Your task to perform on an android device: Open calendar and show me the third week of next month Image 0: 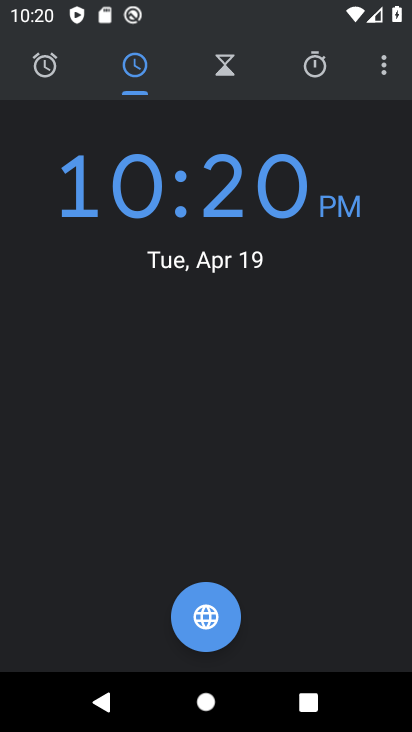
Step 0: press home button
Your task to perform on an android device: Open calendar and show me the third week of next month Image 1: 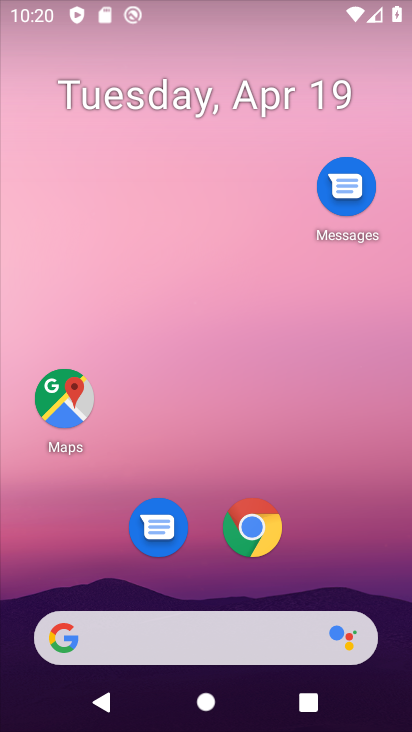
Step 1: drag from (382, 537) to (348, 166)
Your task to perform on an android device: Open calendar and show me the third week of next month Image 2: 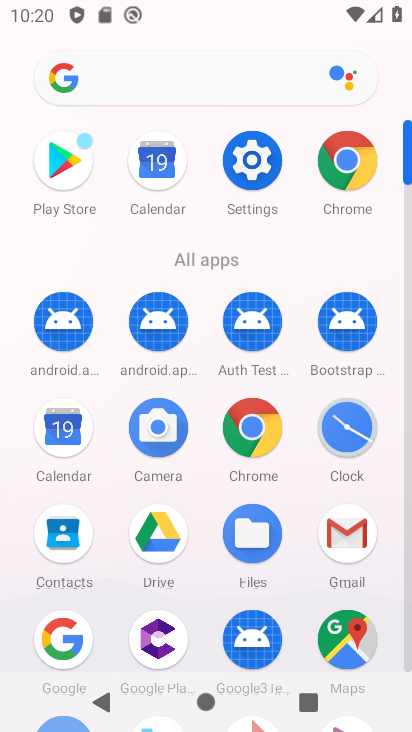
Step 2: click (69, 444)
Your task to perform on an android device: Open calendar and show me the third week of next month Image 3: 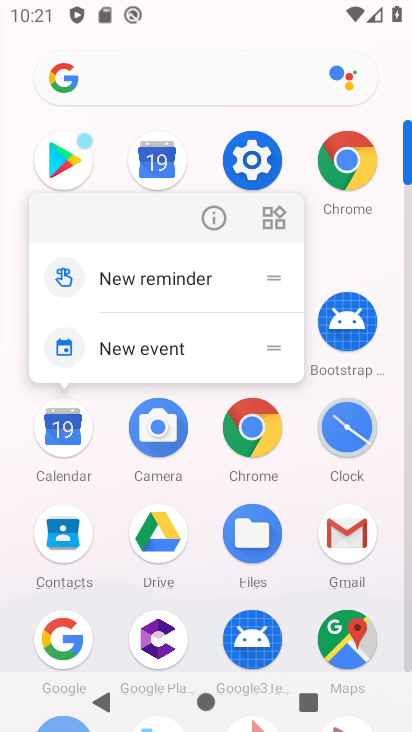
Step 3: click (61, 439)
Your task to perform on an android device: Open calendar and show me the third week of next month Image 4: 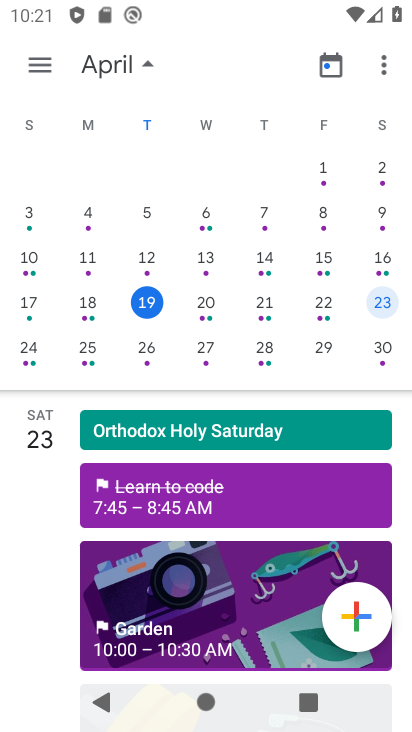
Step 4: drag from (278, 352) to (10, 340)
Your task to perform on an android device: Open calendar and show me the third week of next month Image 5: 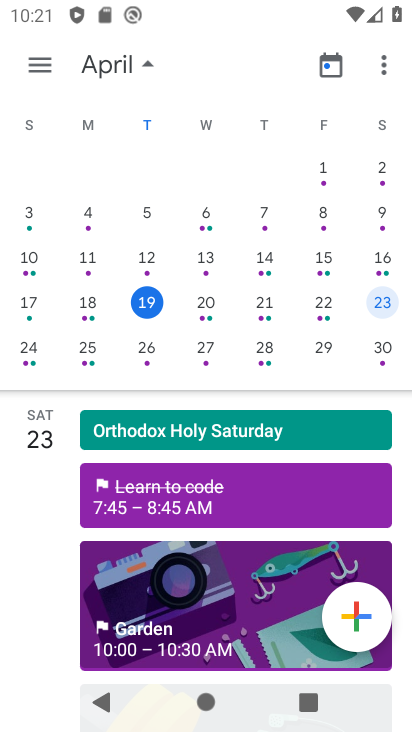
Step 5: drag from (362, 334) to (3, 541)
Your task to perform on an android device: Open calendar and show me the third week of next month Image 6: 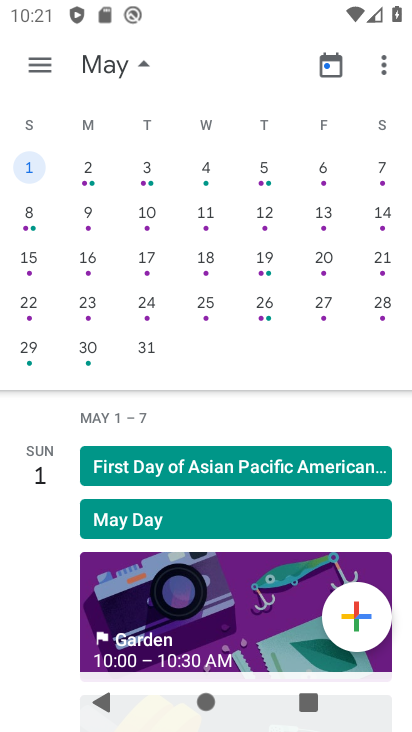
Step 6: click (28, 258)
Your task to perform on an android device: Open calendar and show me the third week of next month Image 7: 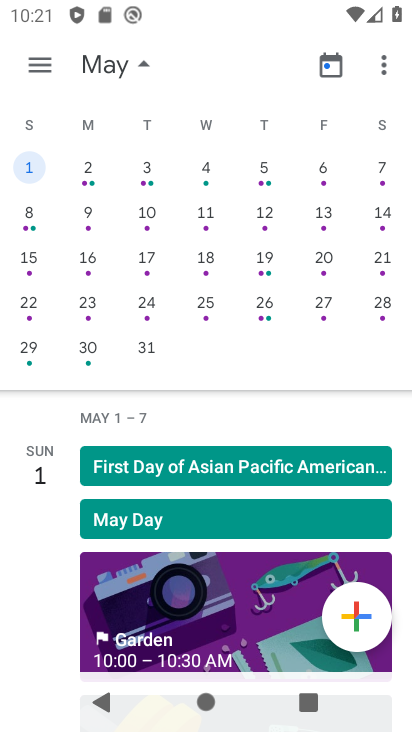
Step 7: click (92, 269)
Your task to perform on an android device: Open calendar and show me the third week of next month Image 8: 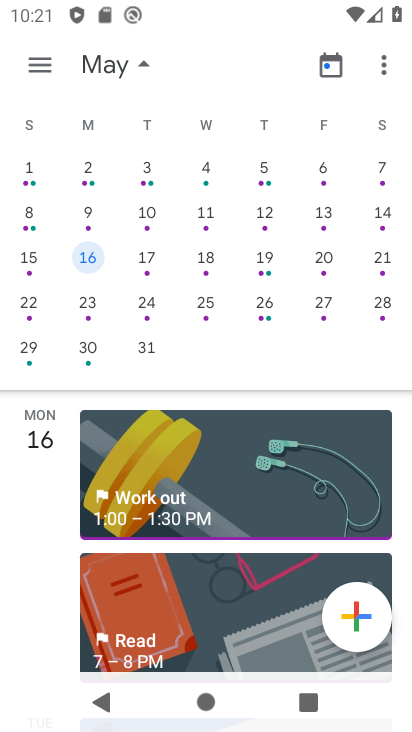
Step 8: click (146, 274)
Your task to perform on an android device: Open calendar and show me the third week of next month Image 9: 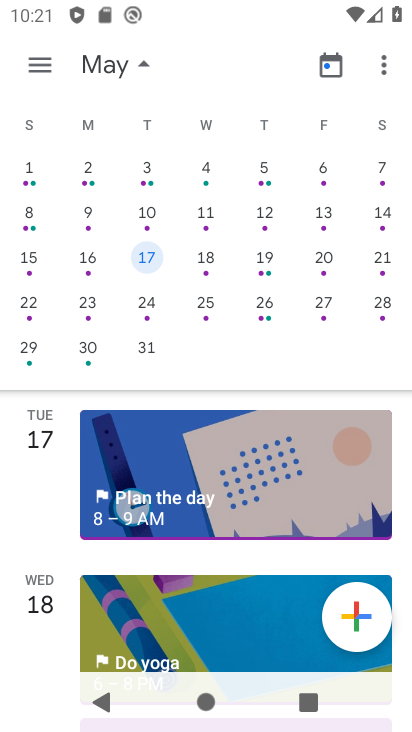
Step 9: click (208, 269)
Your task to perform on an android device: Open calendar and show me the third week of next month Image 10: 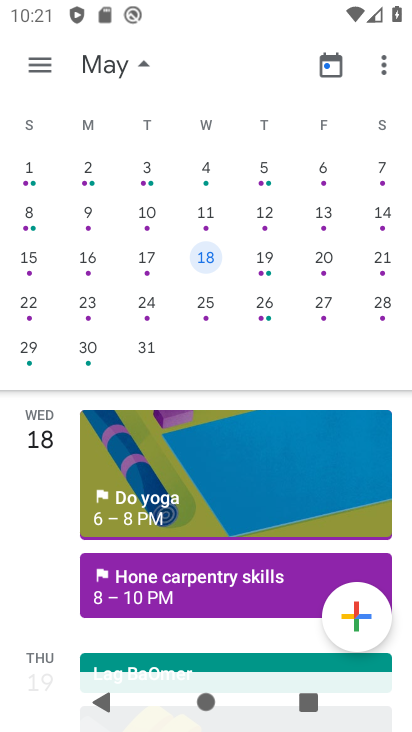
Step 10: click (265, 269)
Your task to perform on an android device: Open calendar and show me the third week of next month Image 11: 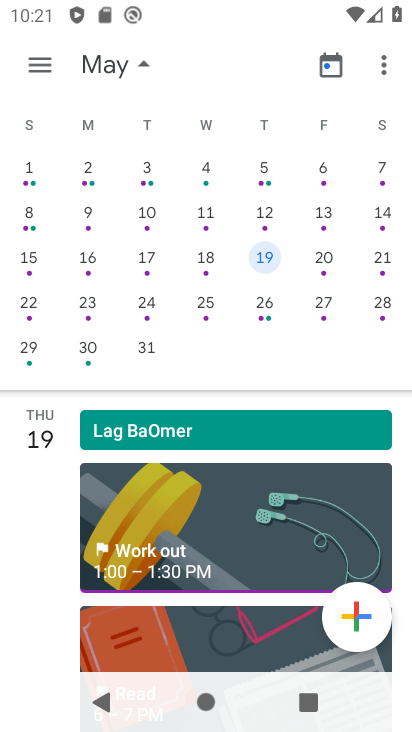
Step 11: click (312, 269)
Your task to perform on an android device: Open calendar and show me the third week of next month Image 12: 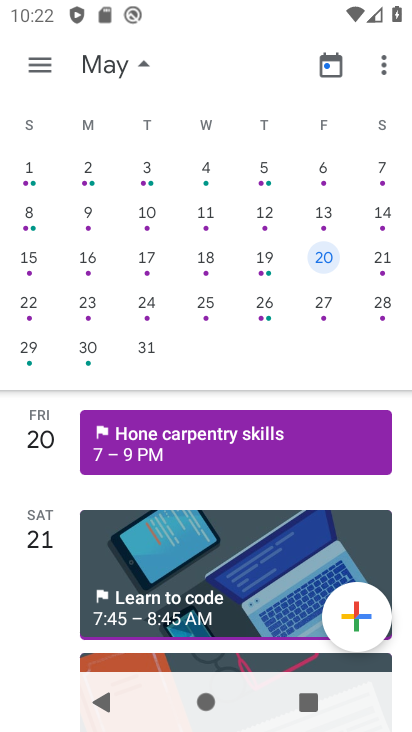
Step 12: click (387, 267)
Your task to perform on an android device: Open calendar and show me the third week of next month Image 13: 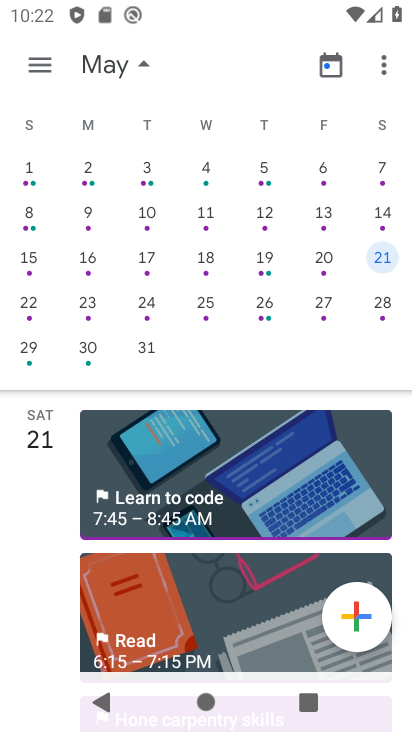
Step 13: task complete